Your task to perform on an android device: turn off wifi Image 0: 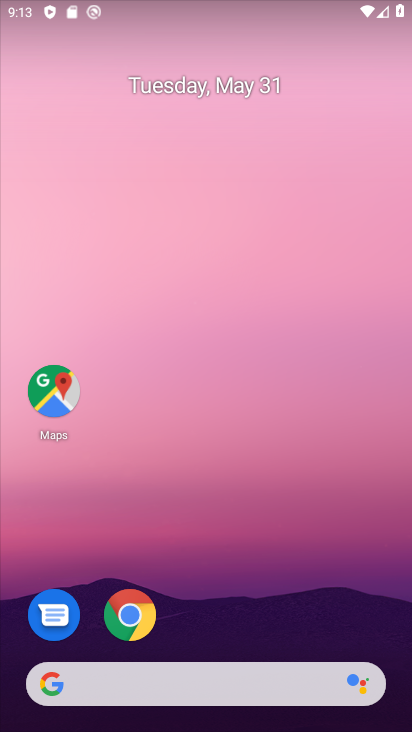
Step 0: drag from (337, 405) to (386, 137)
Your task to perform on an android device: turn off wifi Image 1: 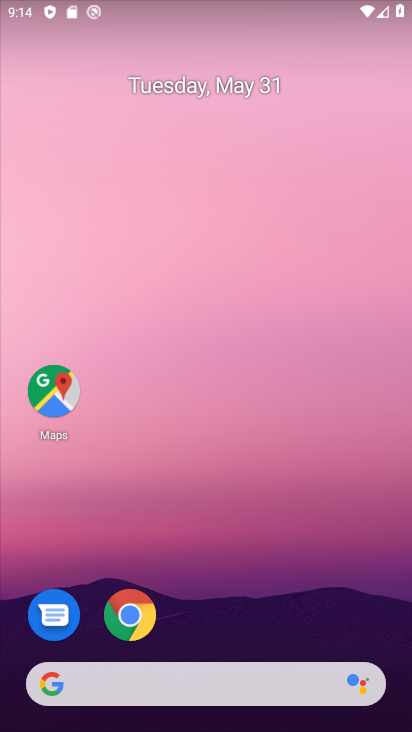
Step 1: drag from (261, 430) to (286, 5)
Your task to perform on an android device: turn off wifi Image 2: 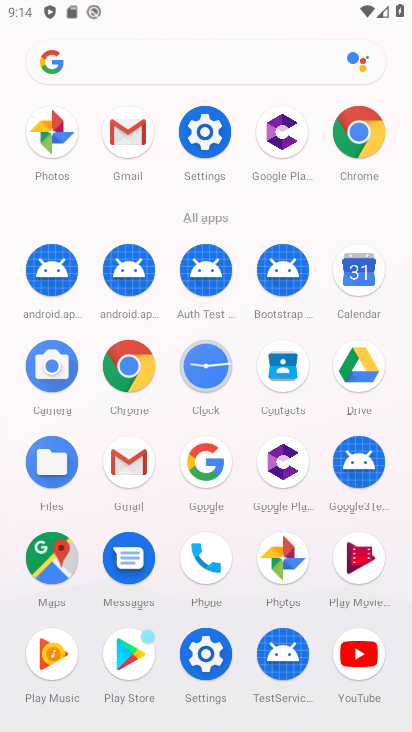
Step 2: click (229, 147)
Your task to perform on an android device: turn off wifi Image 3: 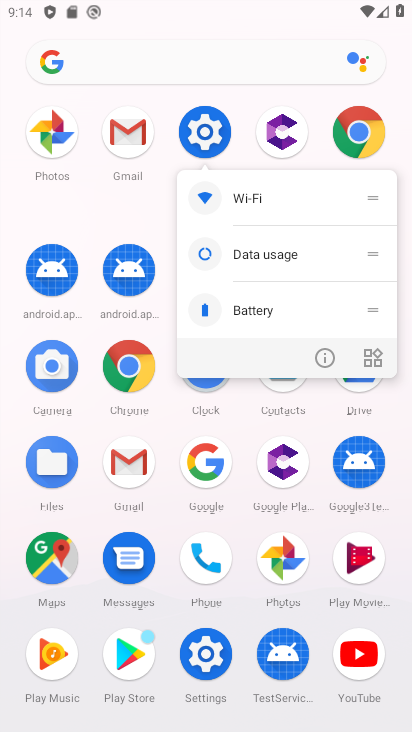
Step 3: click (211, 124)
Your task to perform on an android device: turn off wifi Image 4: 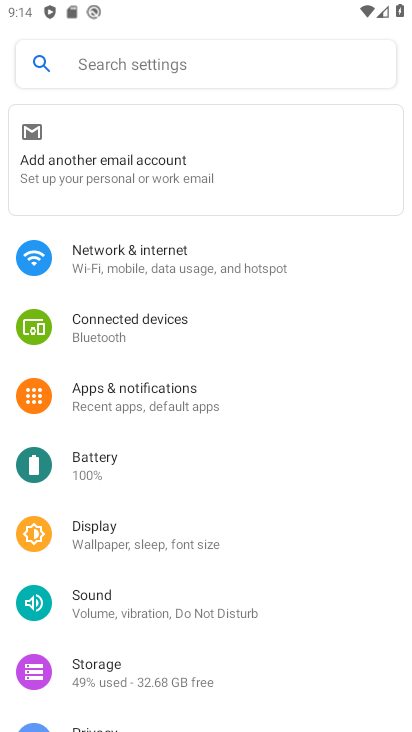
Step 4: click (168, 269)
Your task to perform on an android device: turn off wifi Image 5: 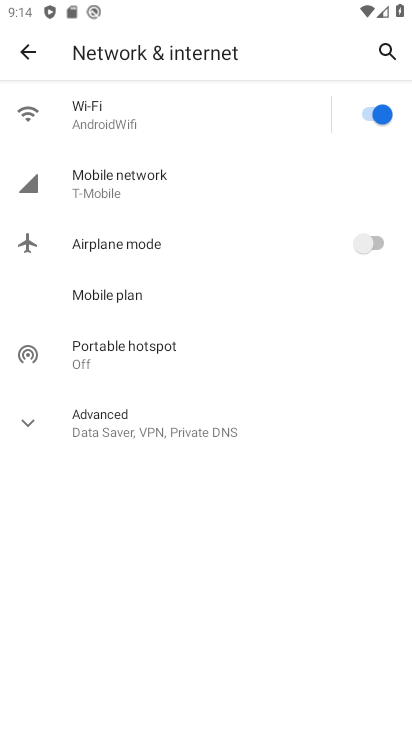
Step 5: click (377, 108)
Your task to perform on an android device: turn off wifi Image 6: 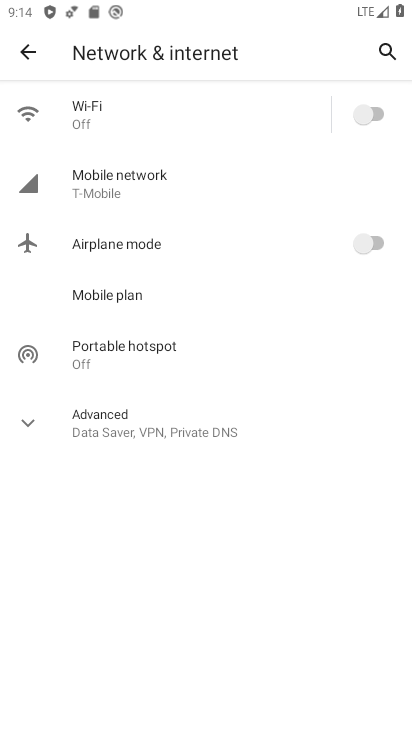
Step 6: task complete